Your task to perform on an android device: Open display settings Image 0: 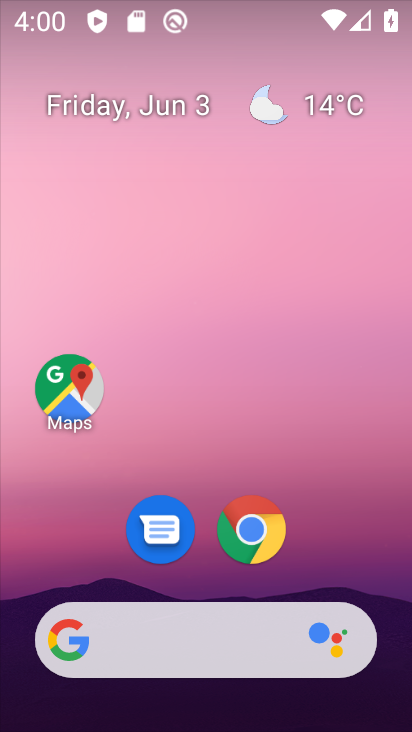
Step 0: drag from (368, 411) to (407, 47)
Your task to perform on an android device: Open display settings Image 1: 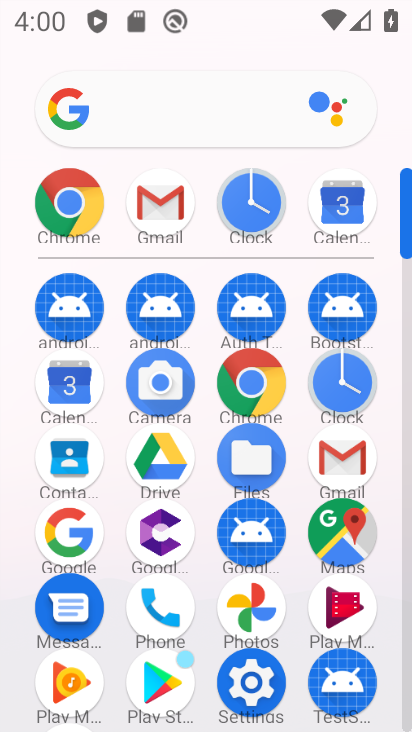
Step 1: drag from (382, 609) to (408, 242)
Your task to perform on an android device: Open display settings Image 2: 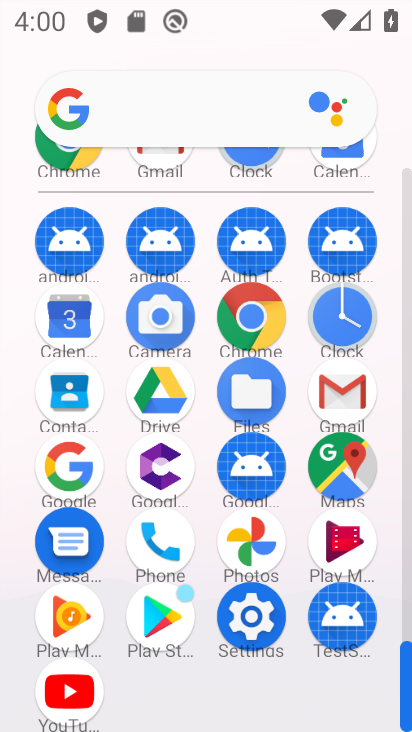
Step 2: click (274, 608)
Your task to perform on an android device: Open display settings Image 3: 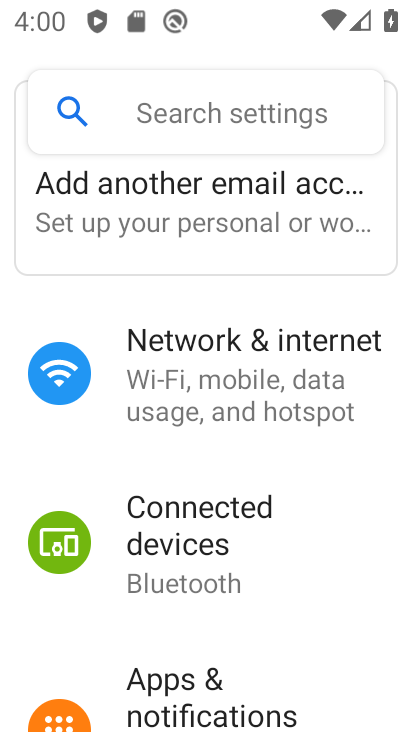
Step 3: drag from (275, 579) to (380, 50)
Your task to perform on an android device: Open display settings Image 4: 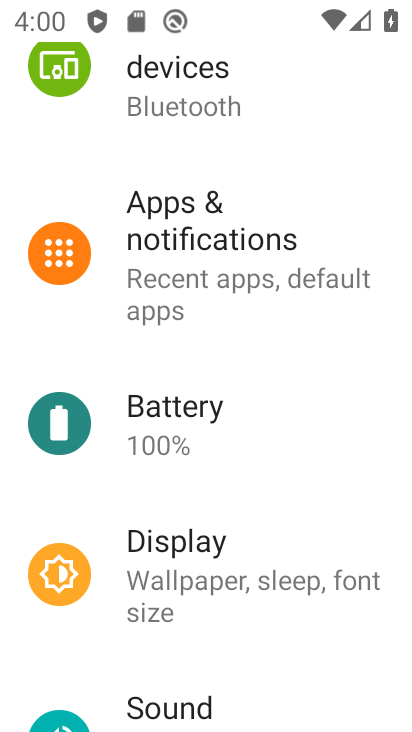
Step 4: click (211, 565)
Your task to perform on an android device: Open display settings Image 5: 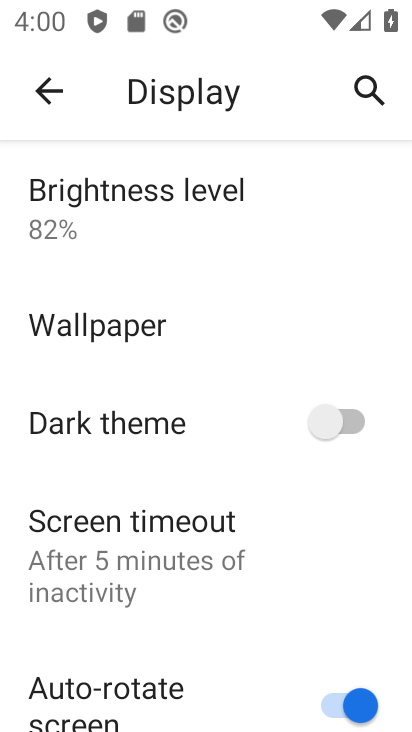
Step 5: task complete